Your task to perform on an android device: Open my contact list Image 0: 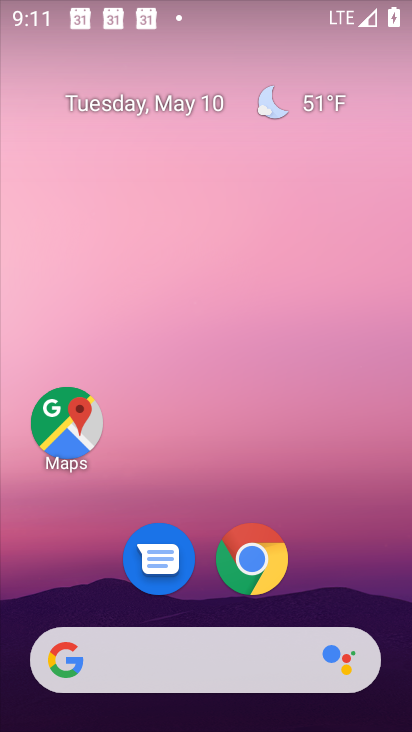
Step 0: drag from (285, 541) to (227, 22)
Your task to perform on an android device: Open my contact list Image 1: 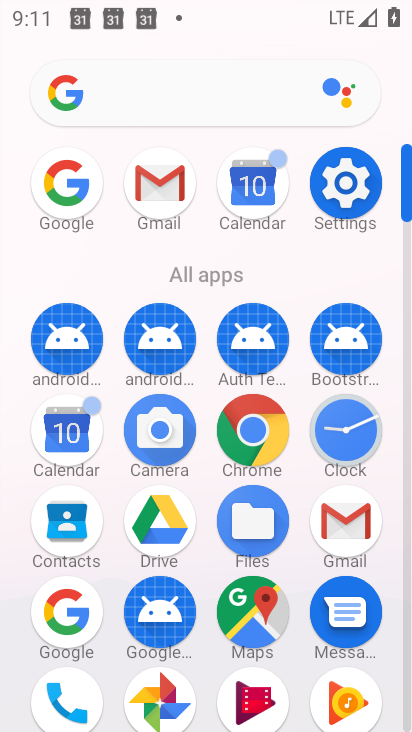
Step 1: click (66, 518)
Your task to perform on an android device: Open my contact list Image 2: 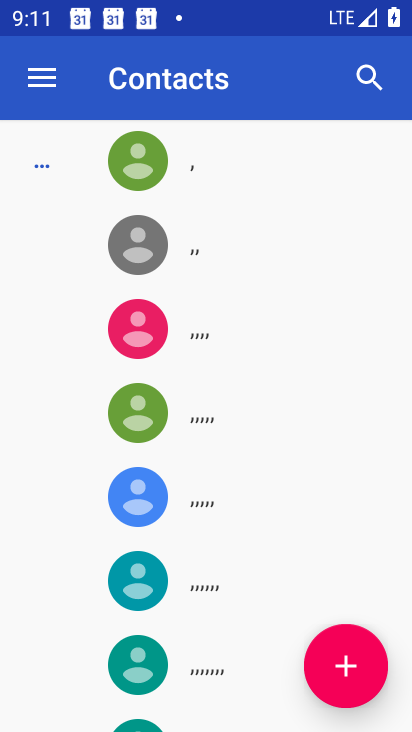
Step 2: task complete